Your task to perform on an android device: Go to display settings Image 0: 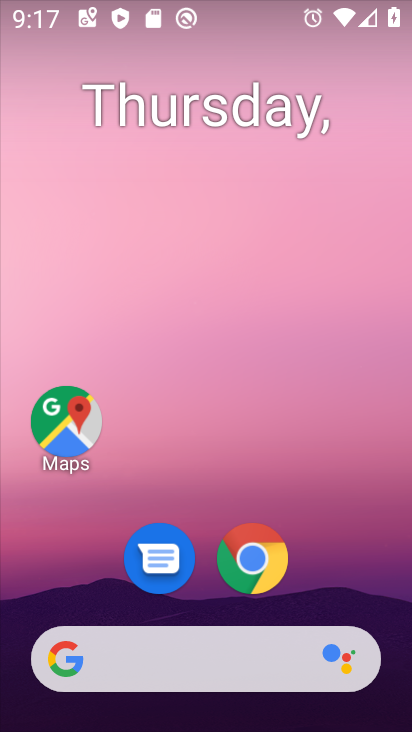
Step 0: drag from (377, 585) to (354, 158)
Your task to perform on an android device: Go to display settings Image 1: 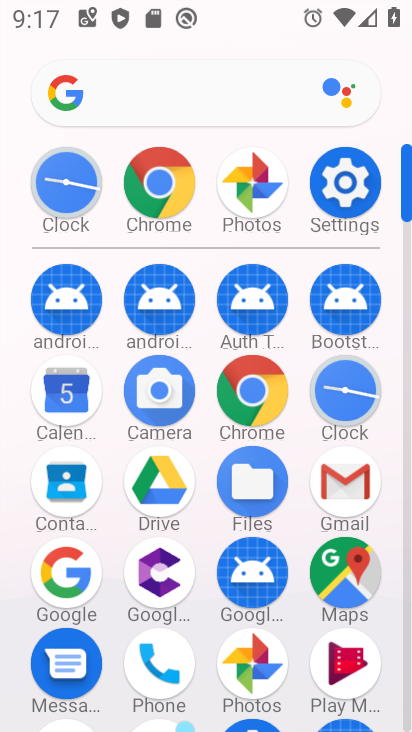
Step 1: click (411, 676)
Your task to perform on an android device: Go to display settings Image 2: 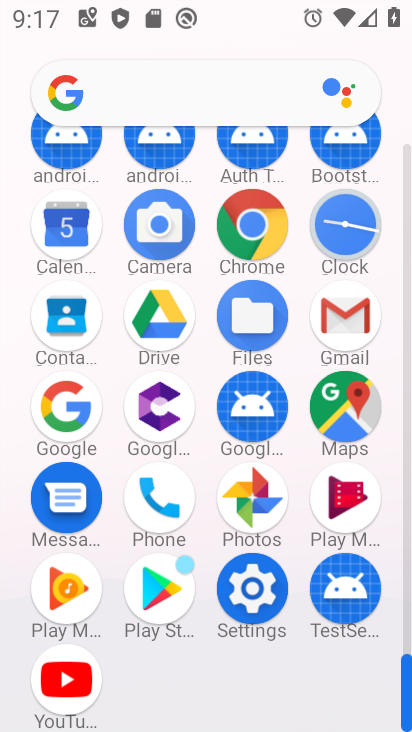
Step 2: click (248, 589)
Your task to perform on an android device: Go to display settings Image 3: 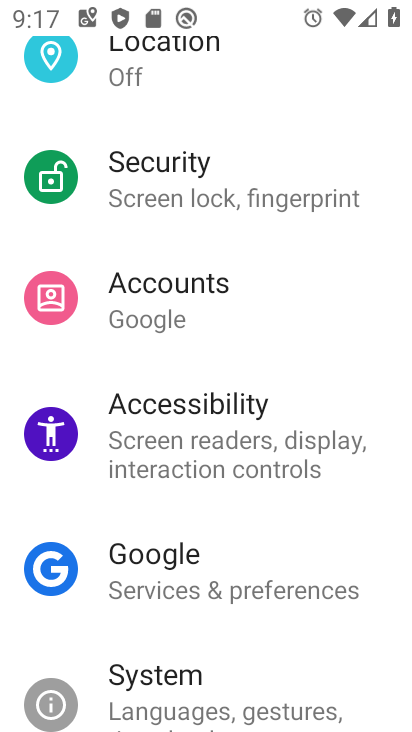
Step 3: drag from (368, 258) to (355, 571)
Your task to perform on an android device: Go to display settings Image 4: 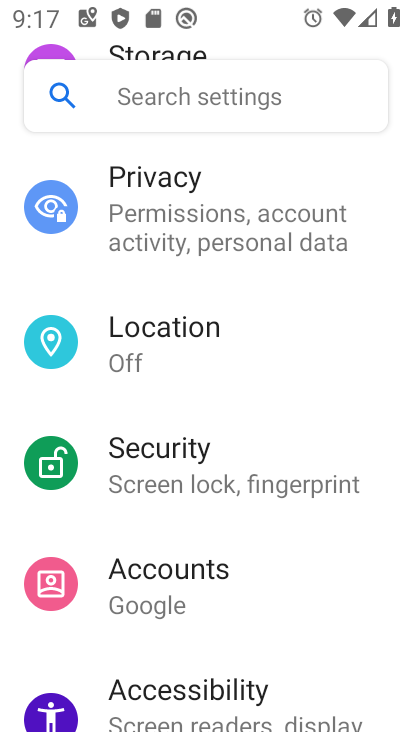
Step 4: drag from (372, 231) to (346, 630)
Your task to perform on an android device: Go to display settings Image 5: 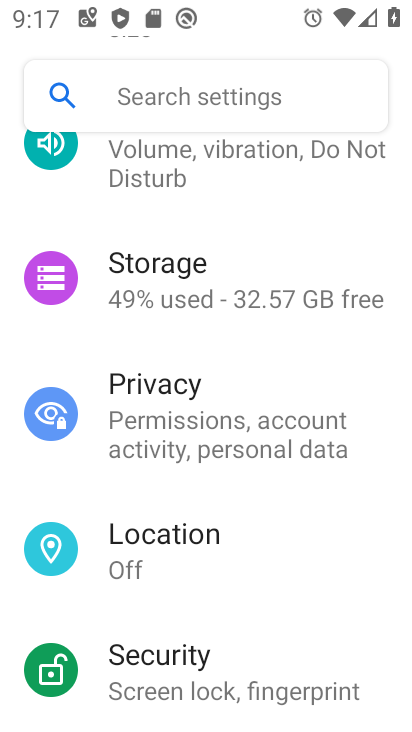
Step 5: drag from (377, 264) to (345, 613)
Your task to perform on an android device: Go to display settings Image 6: 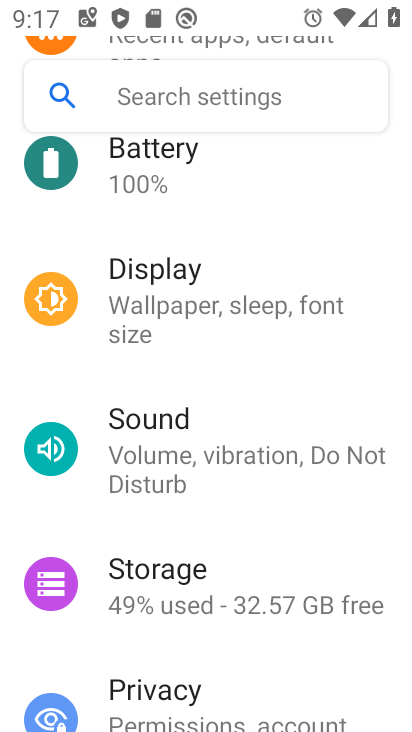
Step 6: click (138, 274)
Your task to perform on an android device: Go to display settings Image 7: 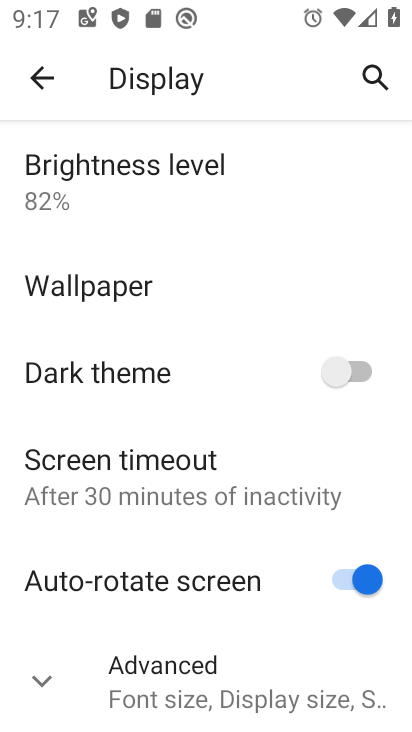
Step 7: click (38, 681)
Your task to perform on an android device: Go to display settings Image 8: 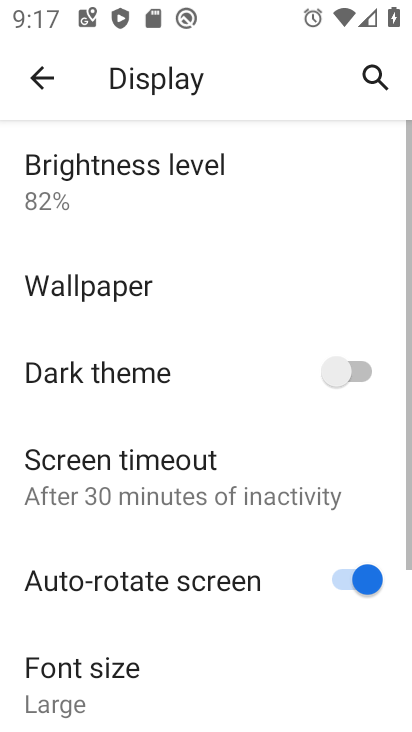
Step 8: task complete